Your task to perform on an android device: see sites visited before in the chrome app Image 0: 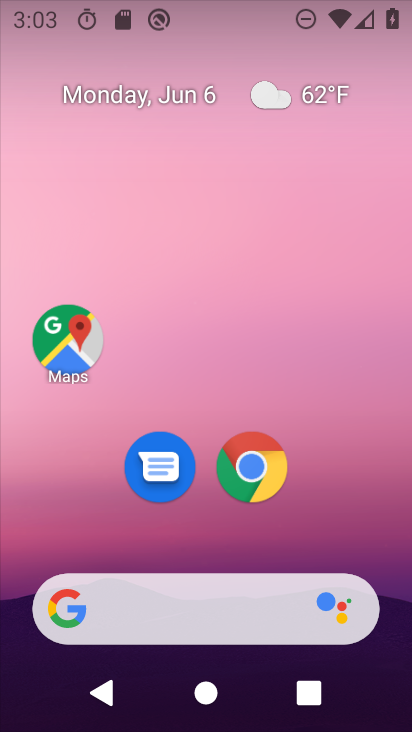
Step 0: click (248, 474)
Your task to perform on an android device: see sites visited before in the chrome app Image 1: 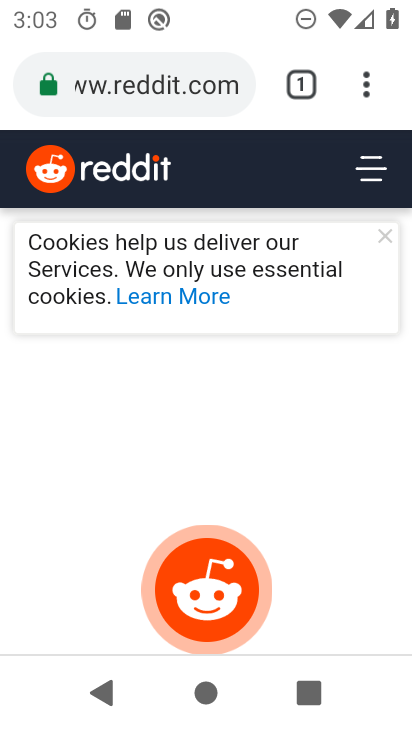
Step 1: click (370, 85)
Your task to perform on an android device: see sites visited before in the chrome app Image 2: 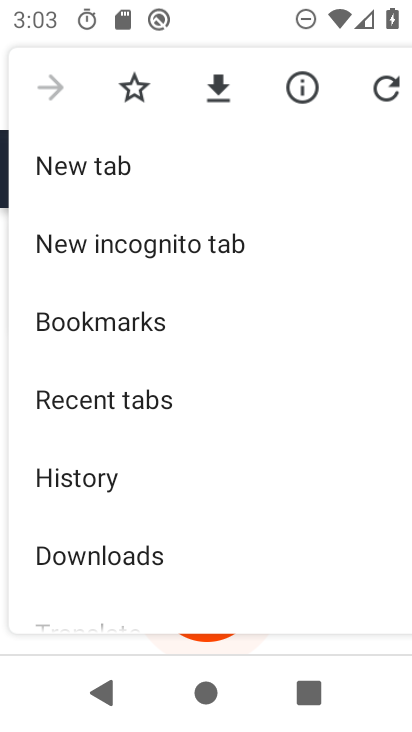
Step 2: click (106, 472)
Your task to perform on an android device: see sites visited before in the chrome app Image 3: 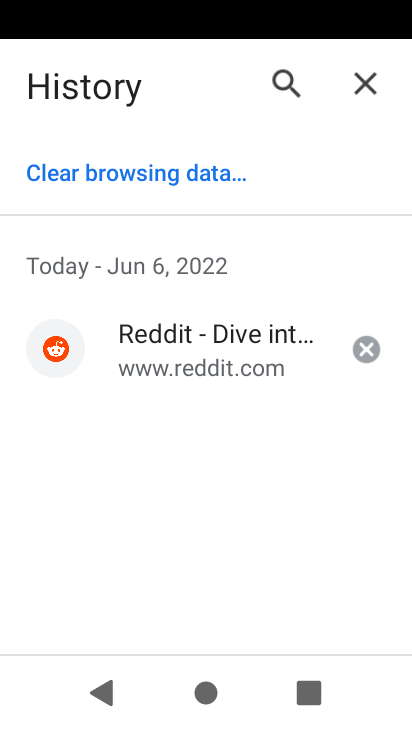
Step 3: press home button
Your task to perform on an android device: see sites visited before in the chrome app Image 4: 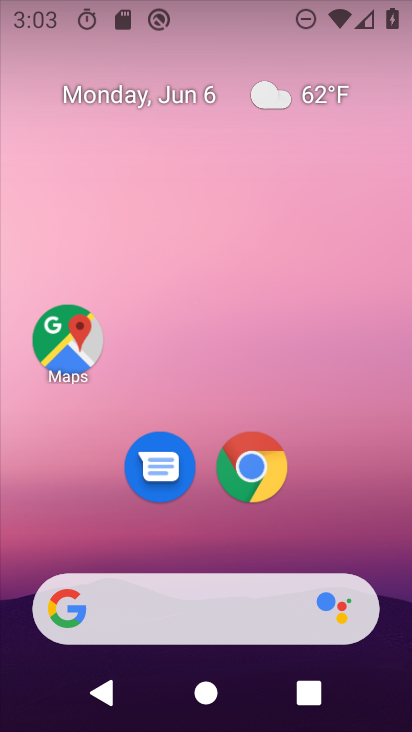
Step 4: click (254, 479)
Your task to perform on an android device: see sites visited before in the chrome app Image 5: 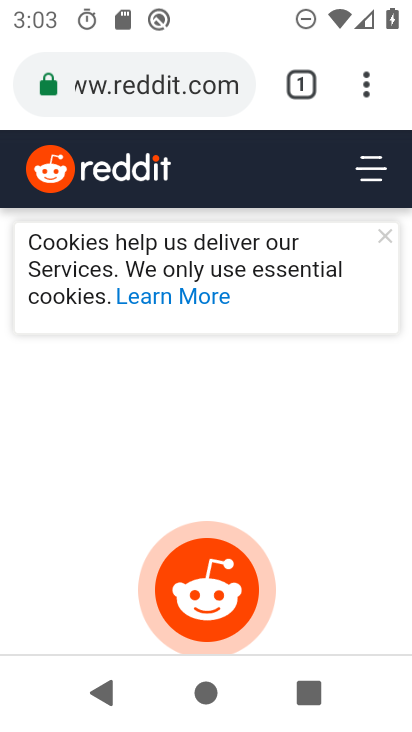
Step 5: click (368, 83)
Your task to perform on an android device: see sites visited before in the chrome app Image 6: 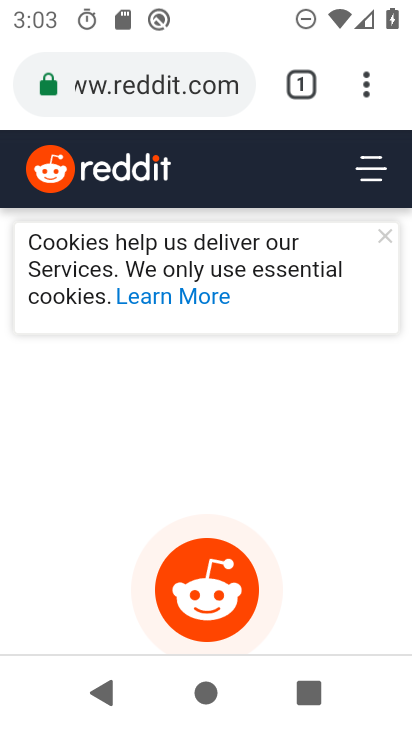
Step 6: click (366, 95)
Your task to perform on an android device: see sites visited before in the chrome app Image 7: 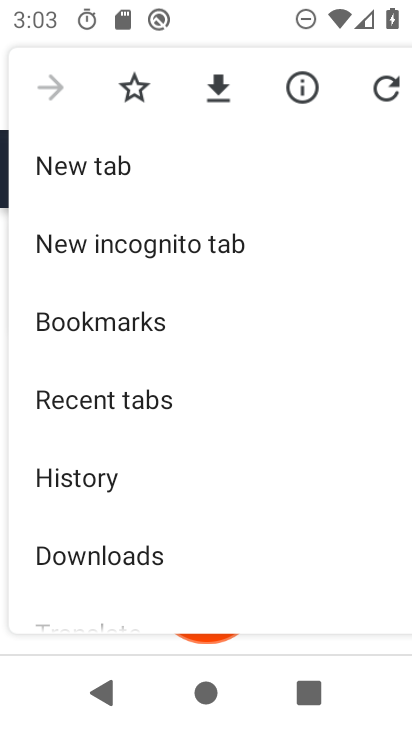
Step 7: drag from (150, 513) to (204, 262)
Your task to perform on an android device: see sites visited before in the chrome app Image 8: 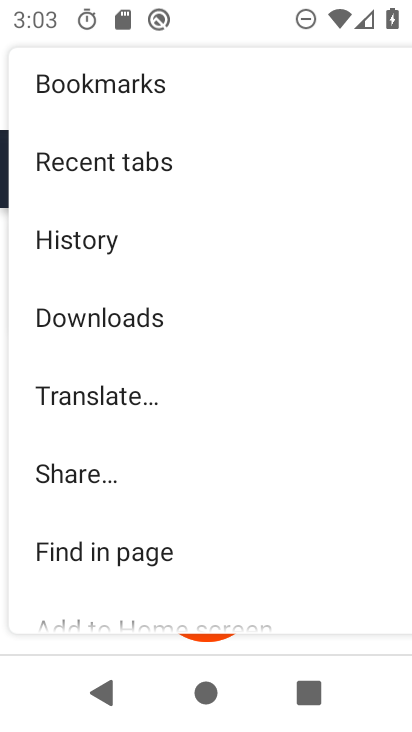
Step 8: click (102, 241)
Your task to perform on an android device: see sites visited before in the chrome app Image 9: 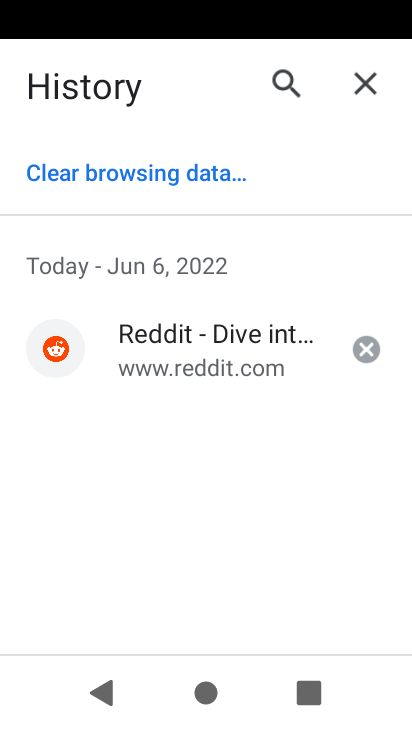
Step 9: task complete